Your task to perform on an android device: Open calendar and show me the first week of next month Image 0: 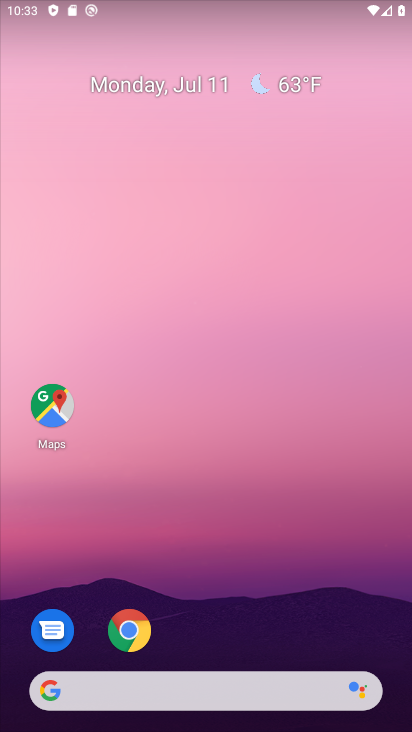
Step 0: drag from (334, 581) to (265, 249)
Your task to perform on an android device: Open calendar and show me the first week of next month Image 1: 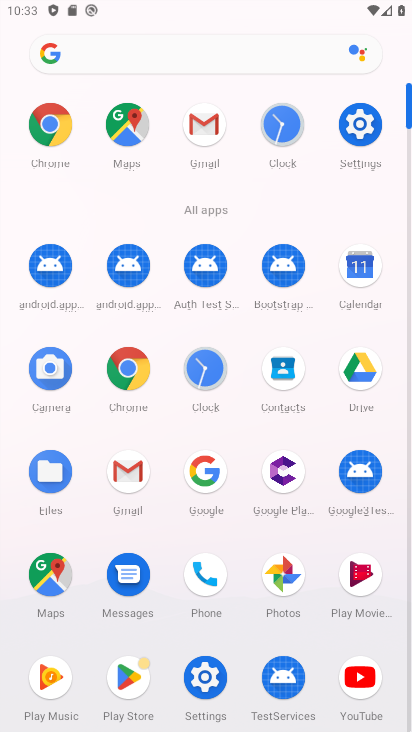
Step 1: click (358, 265)
Your task to perform on an android device: Open calendar and show me the first week of next month Image 2: 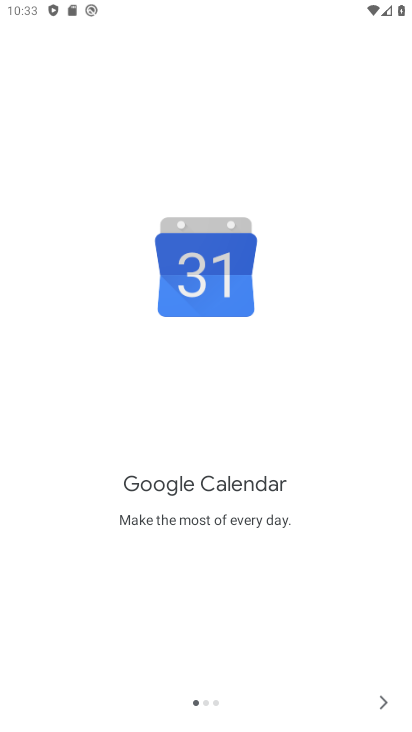
Step 2: click (381, 698)
Your task to perform on an android device: Open calendar and show me the first week of next month Image 3: 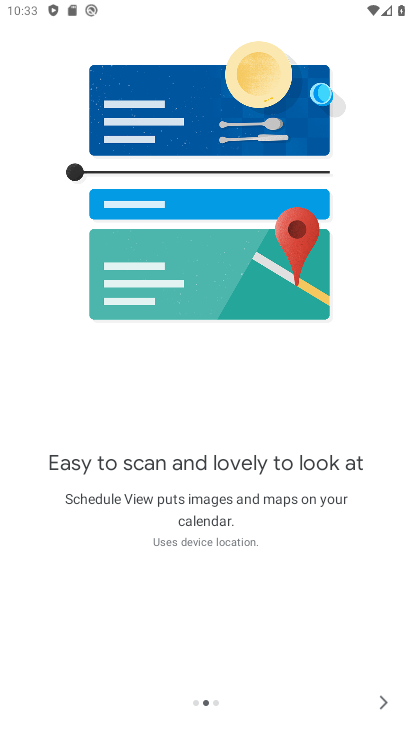
Step 3: click (381, 698)
Your task to perform on an android device: Open calendar and show me the first week of next month Image 4: 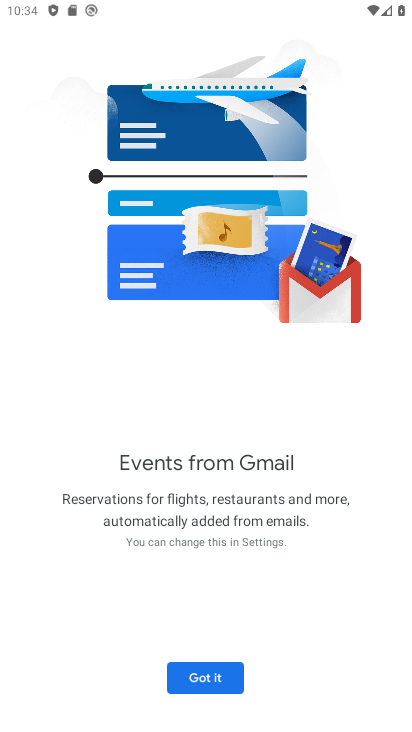
Step 4: click (201, 679)
Your task to perform on an android device: Open calendar and show me the first week of next month Image 5: 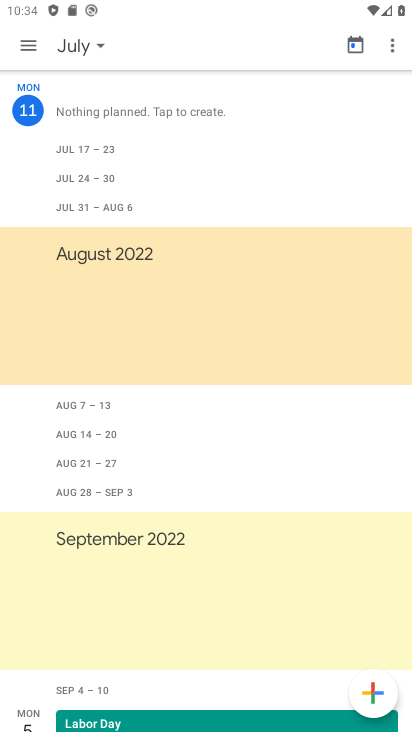
Step 5: click (34, 47)
Your task to perform on an android device: Open calendar and show me the first week of next month Image 6: 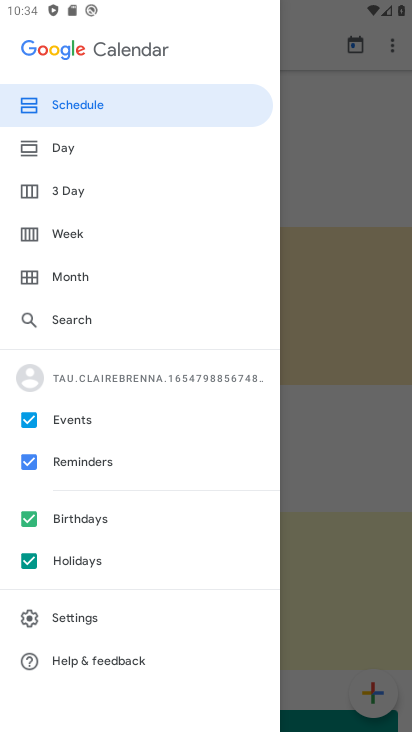
Step 6: click (73, 232)
Your task to perform on an android device: Open calendar and show me the first week of next month Image 7: 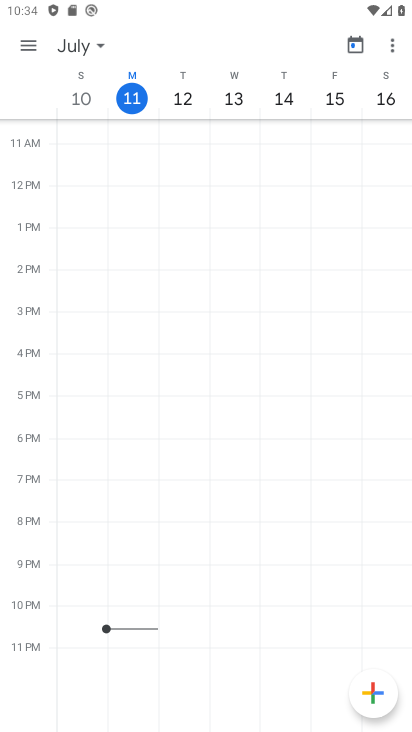
Step 7: click (100, 46)
Your task to perform on an android device: Open calendar and show me the first week of next month Image 8: 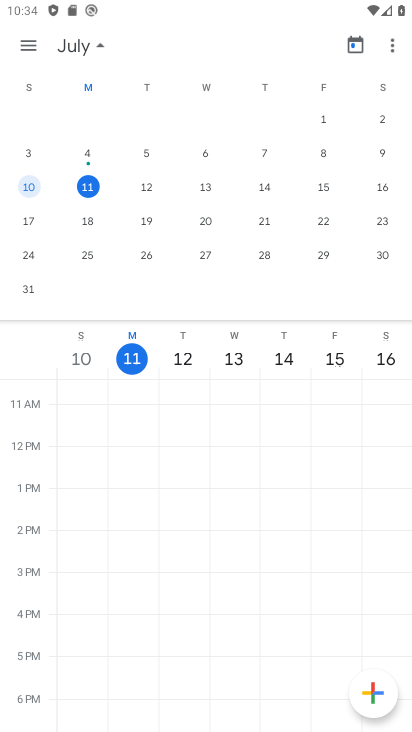
Step 8: drag from (379, 232) to (11, 191)
Your task to perform on an android device: Open calendar and show me the first week of next month Image 9: 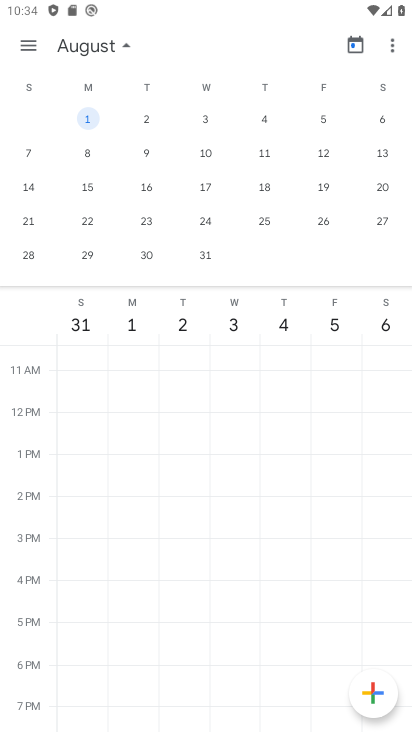
Step 9: click (22, 153)
Your task to perform on an android device: Open calendar and show me the first week of next month Image 10: 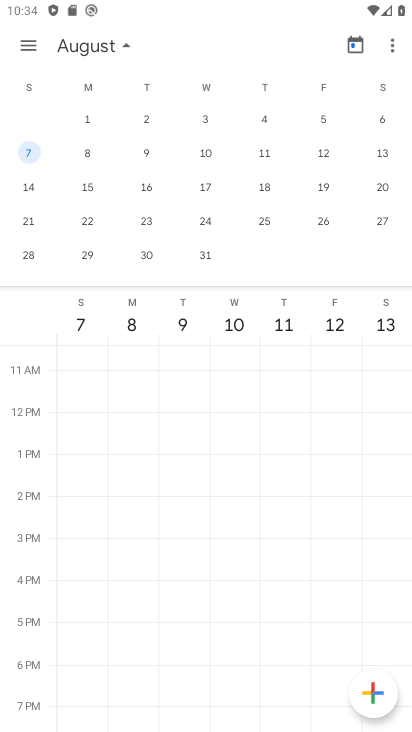
Step 10: task complete